Your task to perform on an android device: Look up the best gaming chair on Best Buy. Image 0: 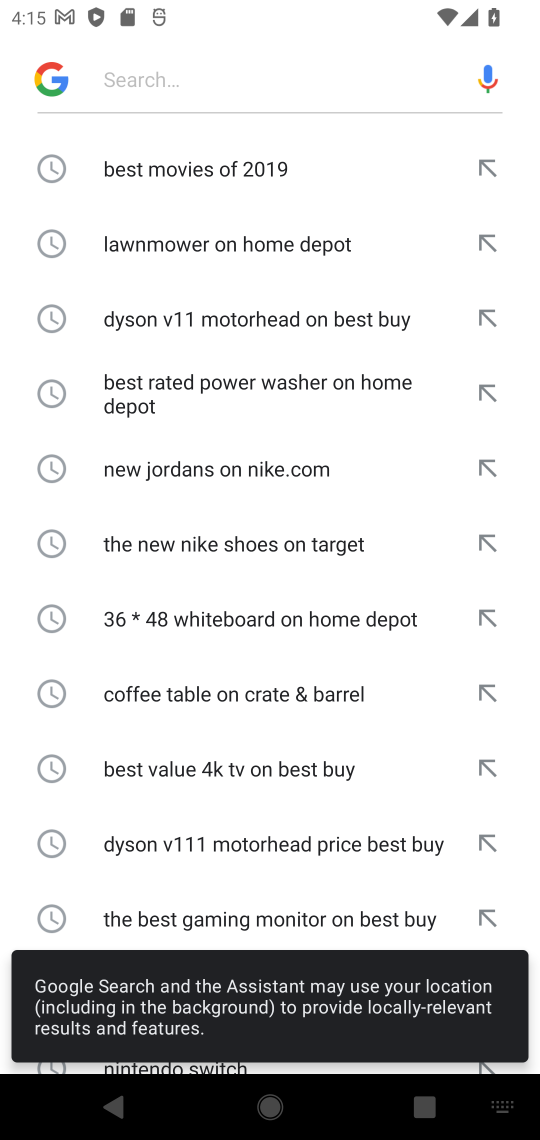
Step 0: press home button
Your task to perform on an android device: Look up the best gaming chair on Best Buy. Image 1: 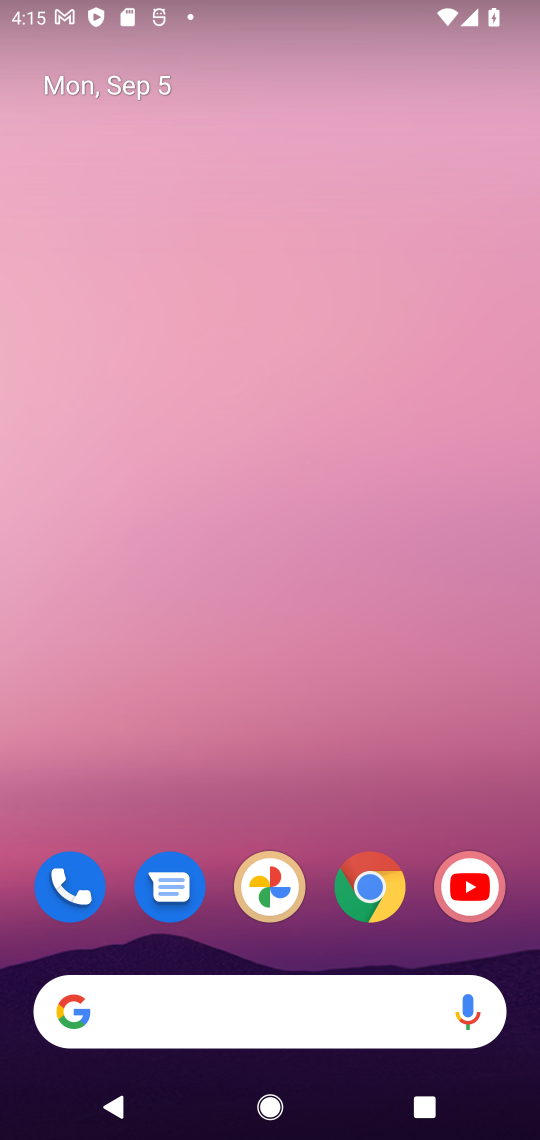
Step 1: drag from (429, 940) to (537, 208)
Your task to perform on an android device: Look up the best gaming chair on Best Buy. Image 2: 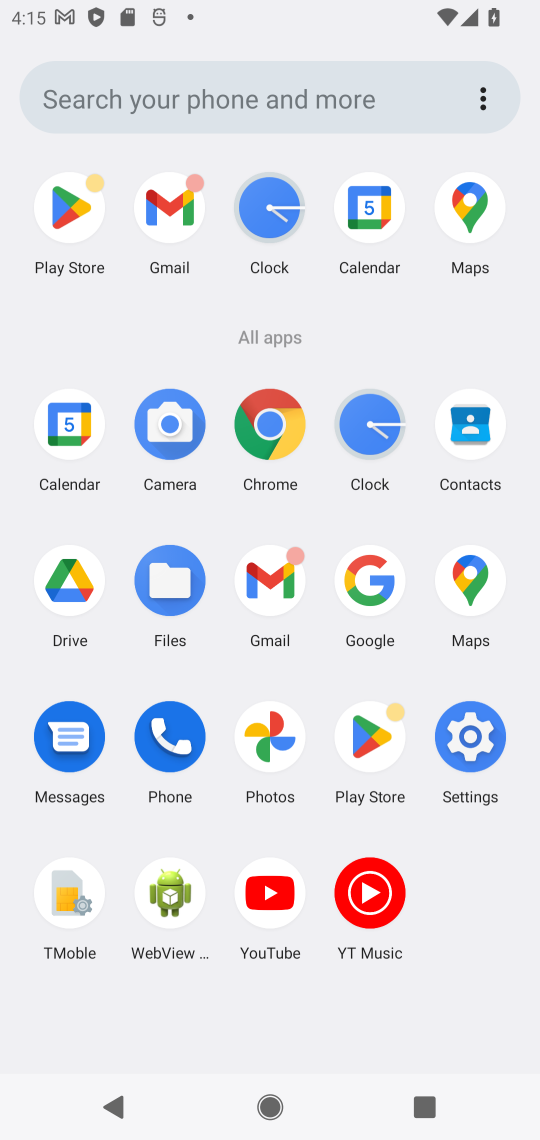
Step 2: click (281, 421)
Your task to perform on an android device: Look up the best gaming chair on Best Buy. Image 3: 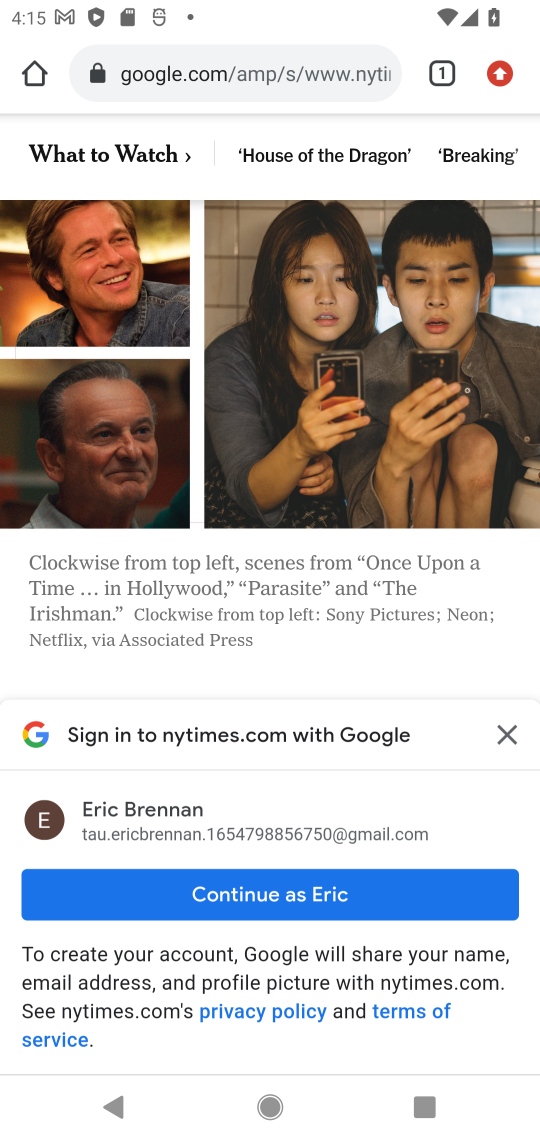
Step 3: click (170, 65)
Your task to perform on an android device: Look up the best gaming chair on Best Buy. Image 4: 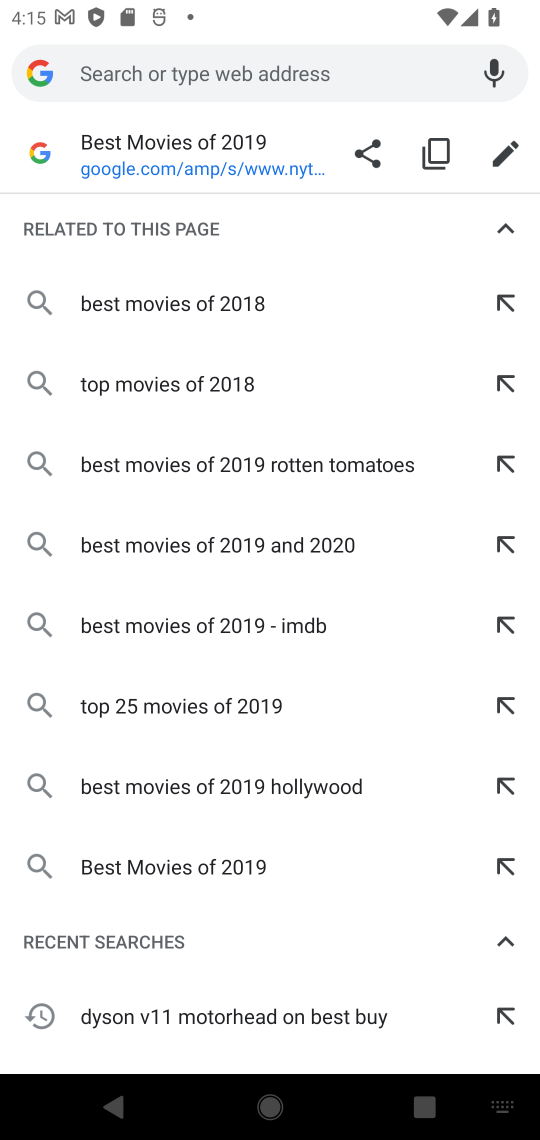
Step 4: type "best gaming chair on Best Buy"
Your task to perform on an android device: Look up the best gaming chair on Best Buy. Image 5: 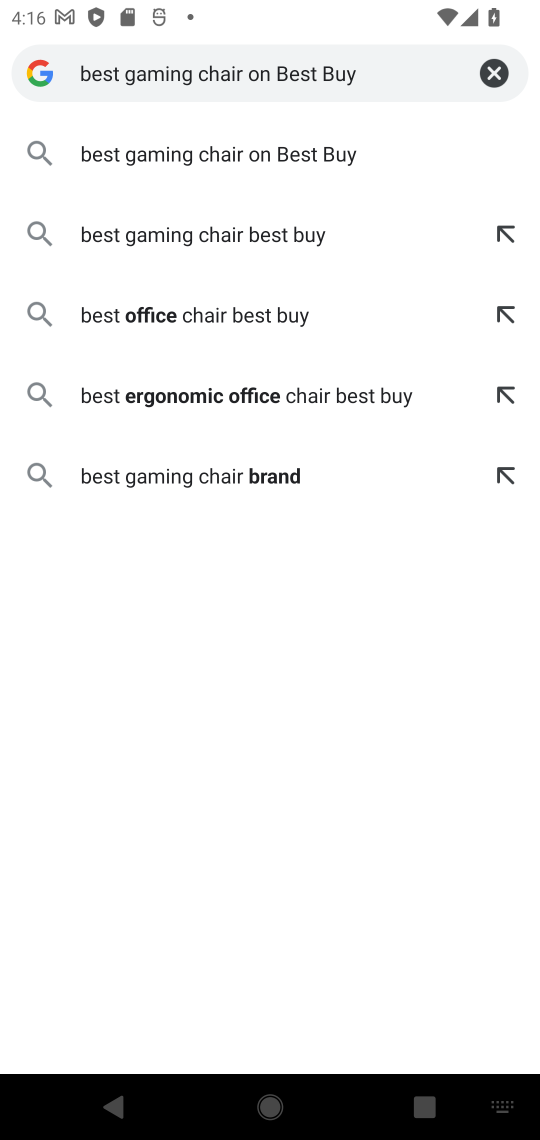
Step 5: press enter
Your task to perform on an android device: Look up the best gaming chair on Best Buy. Image 6: 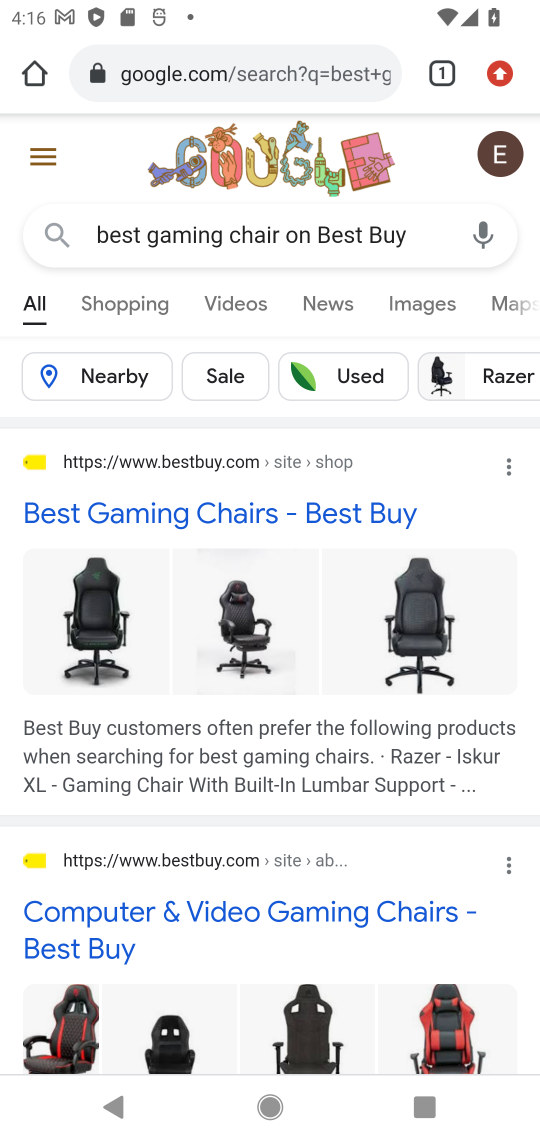
Step 6: click (249, 521)
Your task to perform on an android device: Look up the best gaming chair on Best Buy. Image 7: 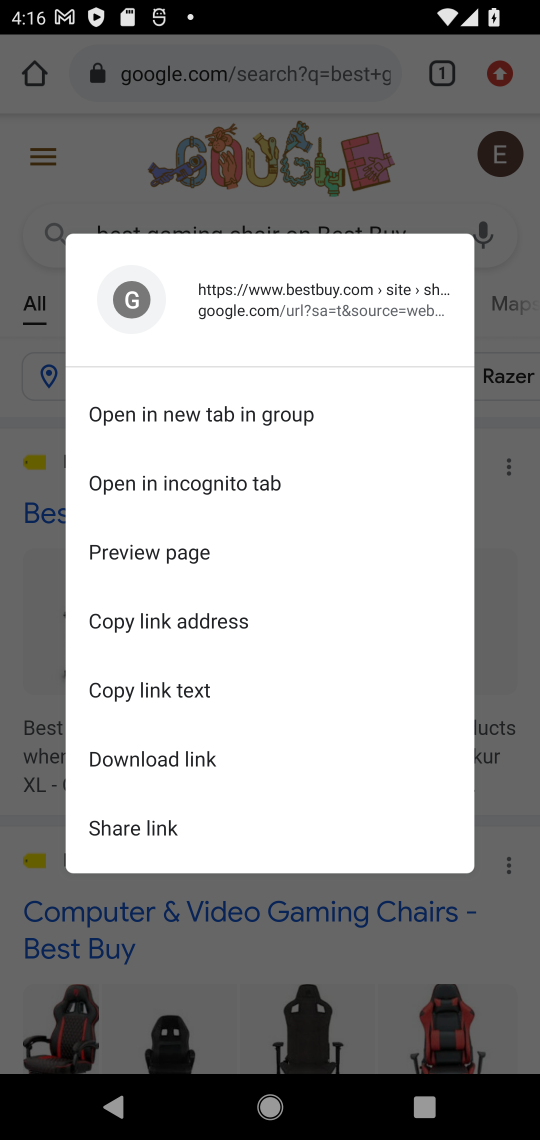
Step 7: click (524, 559)
Your task to perform on an android device: Look up the best gaming chair on Best Buy. Image 8: 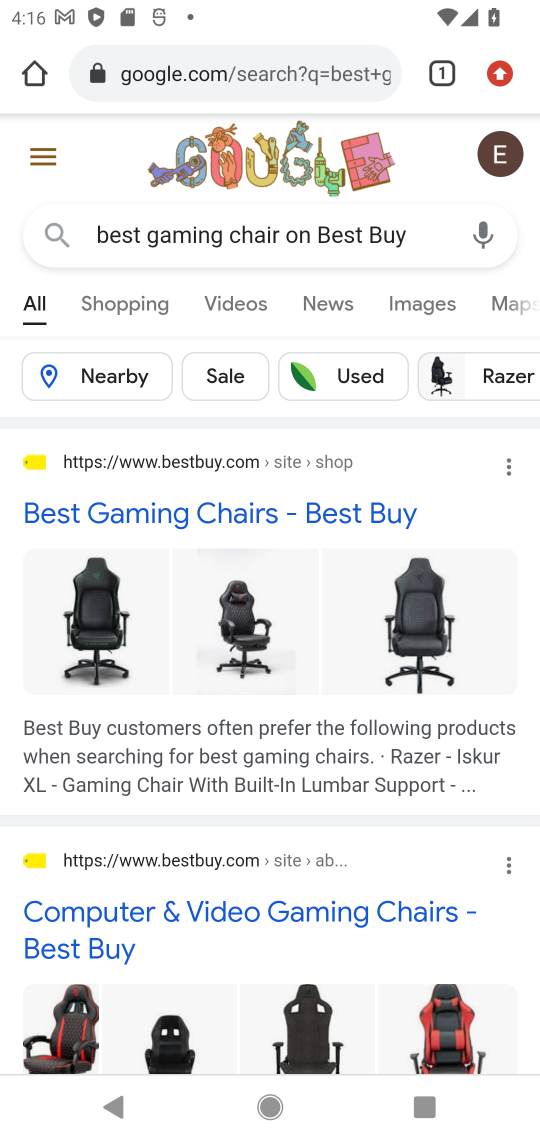
Step 8: click (129, 505)
Your task to perform on an android device: Look up the best gaming chair on Best Buy. Image 9: 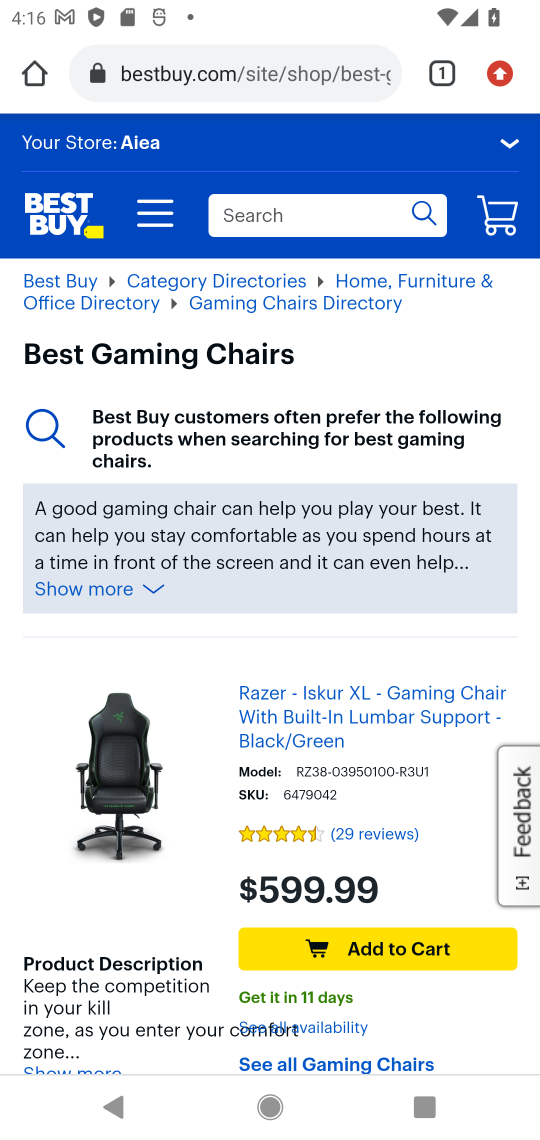
Step 9: click (430, 407)
Your task to perform on an android device: Look up the best gaming chair on Best Buy. Image 10: 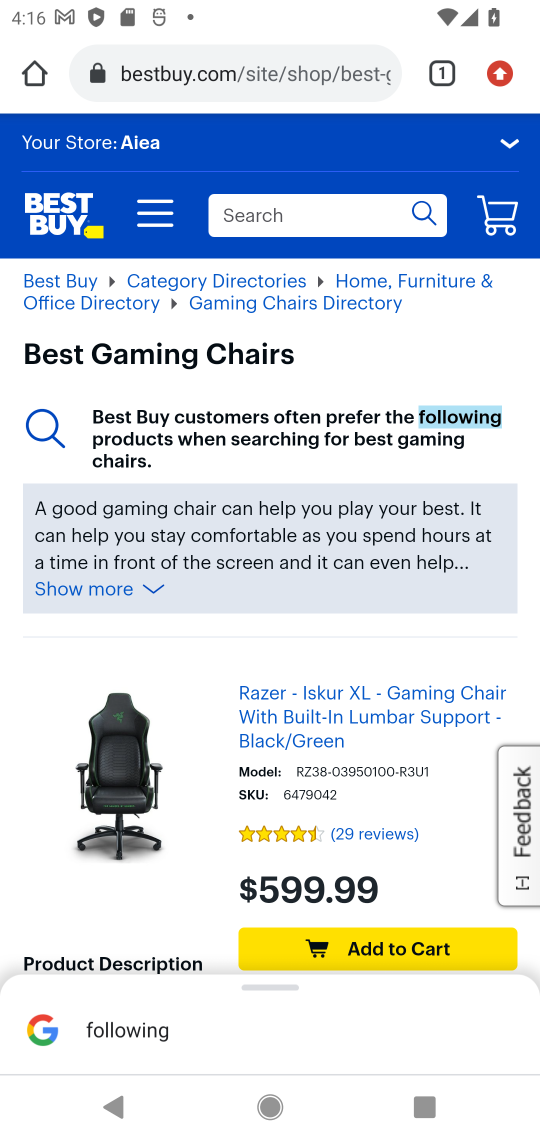
Step 10: task complete